Your task to perform on an android device: change the clock style Image 0: 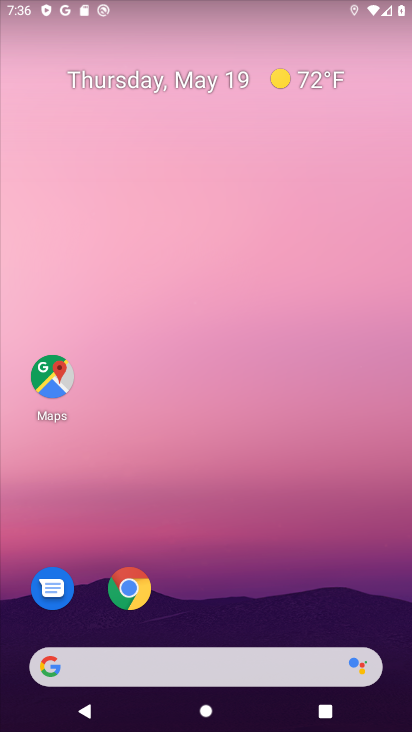
Step 0: drag from (292, 526) to (274, 47)
Your task to perform on an android device: change the clock style Image 1: 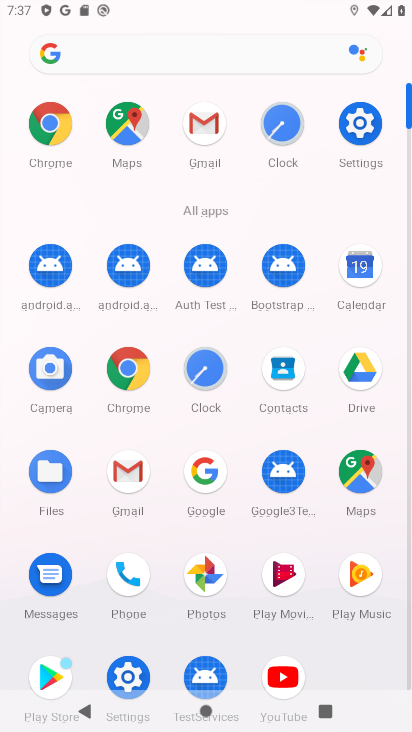
Step 1: click (278, 130)
Your task to perform on an android device: change the clock style Image 2: 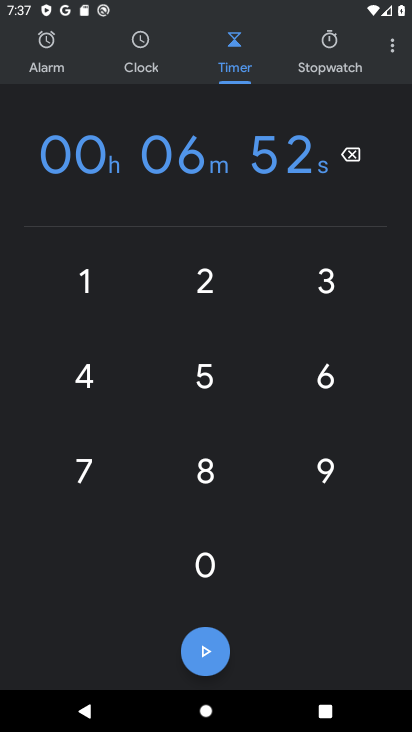
Step 2: click (395, 53)
Your task to perform on an android device: change the clock style Image 3: 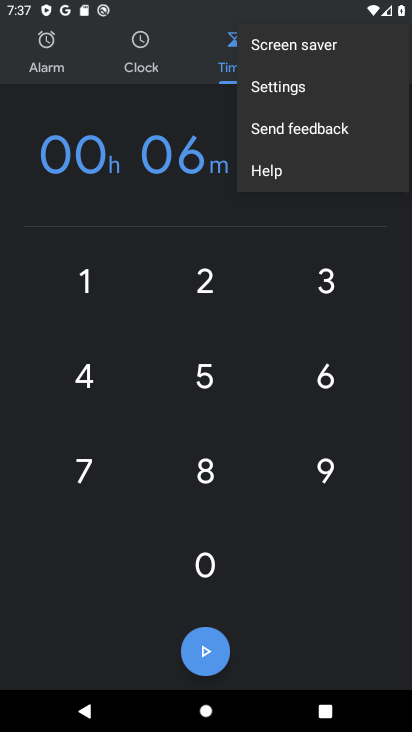
Step 3: click (274, 101)
Your task to perform on an android device: change the clock style Image 4: 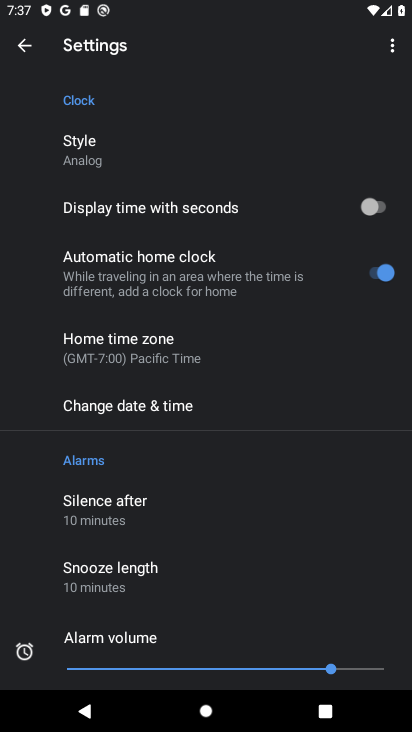
Step 4: click (173, 154)
Your task to perform on an android device: change the clock style Image 5: 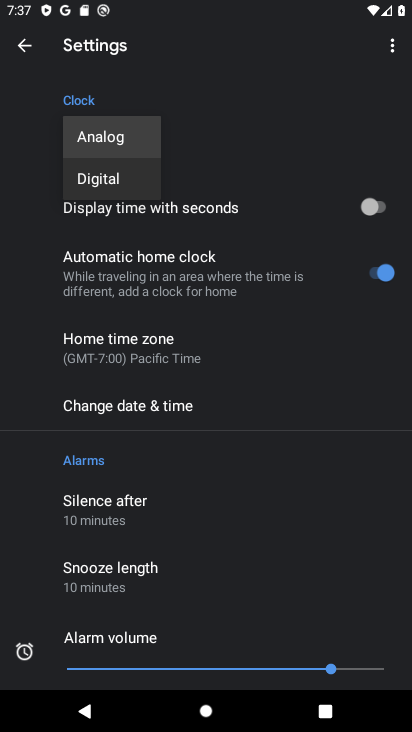
Step 5: click (103, 185)
Your task to perform on an android device: change the clock style Image 6: 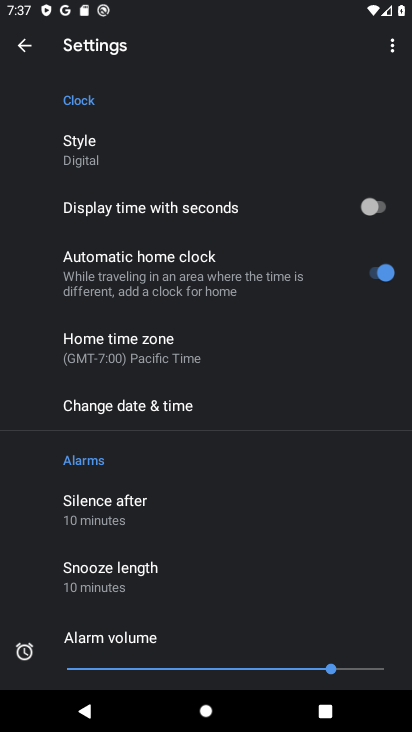
Step 6: task complete